Your task to perform on an android device: Open settings Image 0: 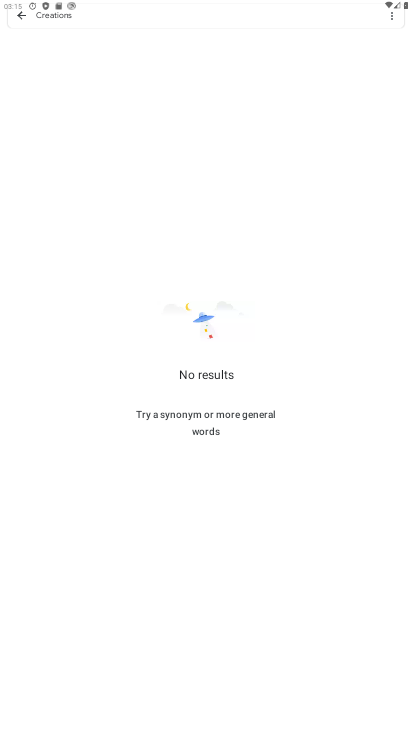
Step 0: press home button
Your task to perform on an android device: Open settings Image 1: 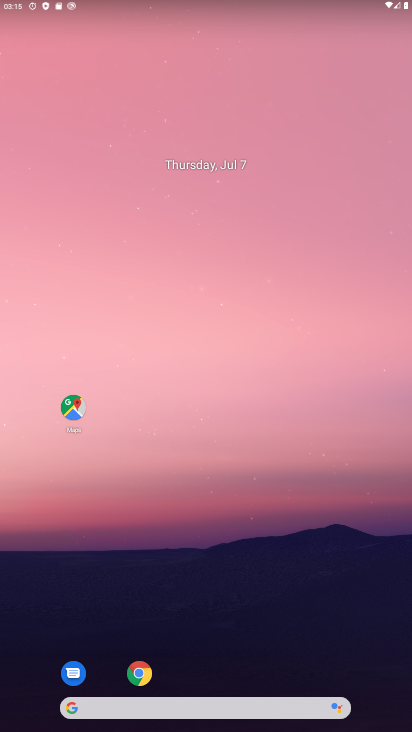
Step 1: drag from (222, 661) to (222, 321)
Your task to perform on an android device: Open settings Image 2: 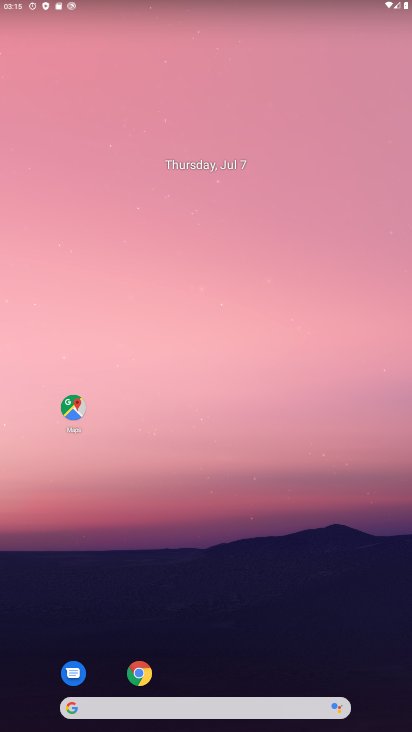
Step 2: drag from (229, 668) to (220, 219)
Your task to perform on an android device: Open settings Image 3: 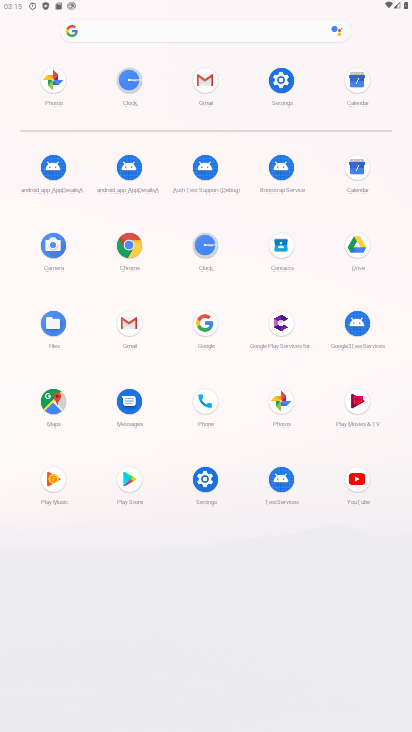
Step 3: click (286, 92)
Your task to perform on an android device: Open settings Image 4: 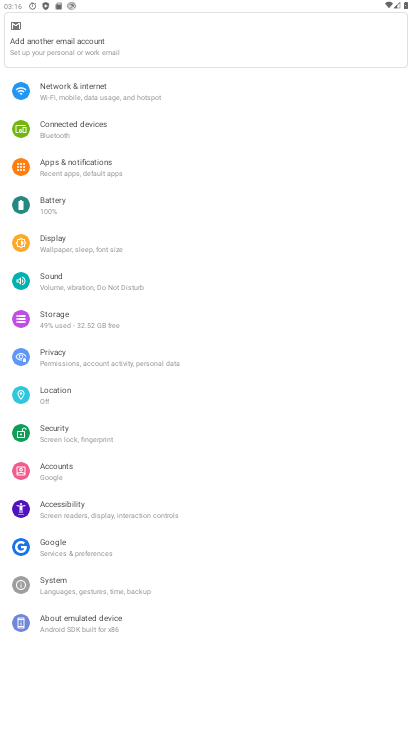
Step 4: task complete